Your task to perform on an android device: manage bookmarks in the chrome app Image 0: 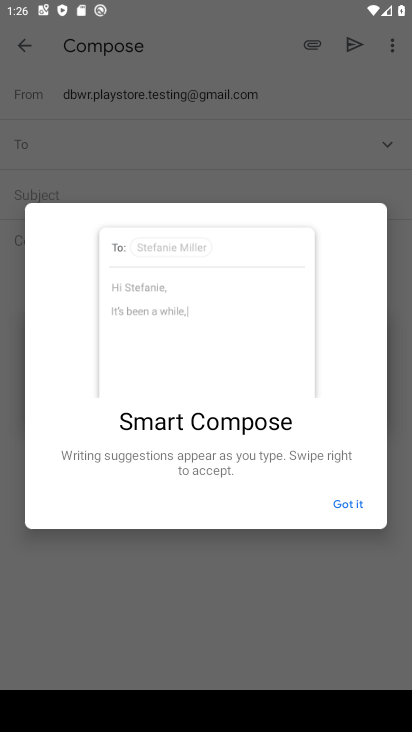
Step 0: press home button
Your task to perform on an android device: manage bookmarks in the chrome app Image 1: 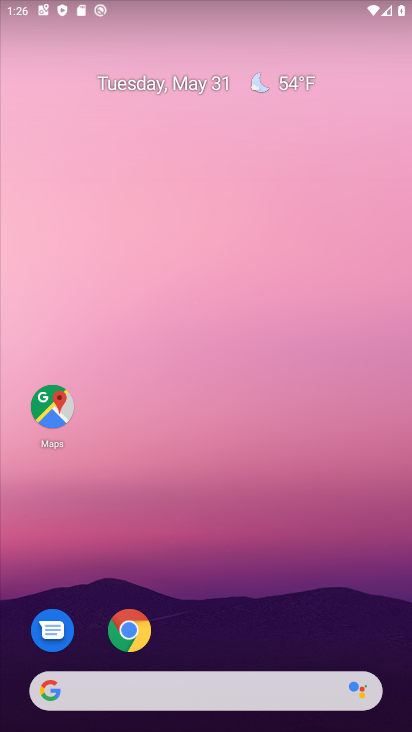
Step 1: drag from (221, 621) to (254, 90)
Your task to perform on an android device: manage bookmarks in the chrome app Image 2: 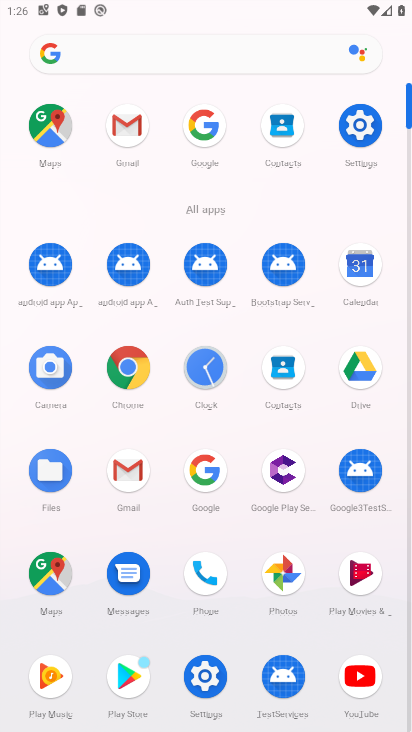
Step 2: click (132, 365)
Your task to perform on an android device: manage bookmarks in the chrome app Image 3: 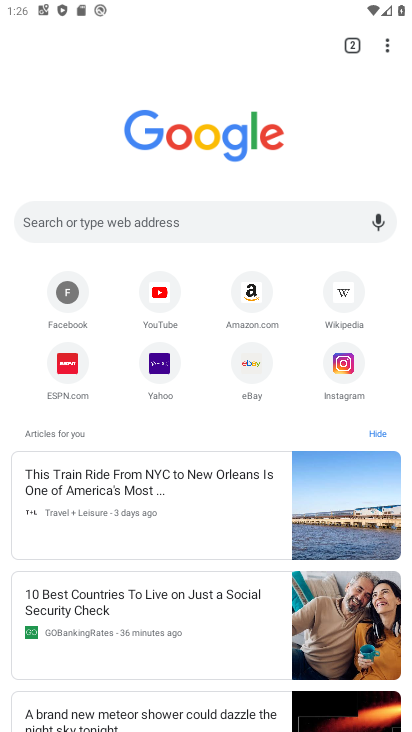
Step 3: click (386, 51)
Your task to perform on an android device: manage bookmarks in the chrome app Image 4: 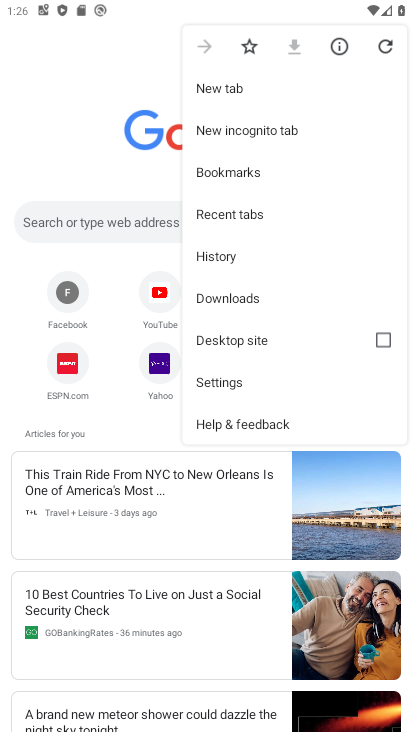
Step 4: drag from (232, 385) to (362, 60)
Your task to perform on an android device: manage bookmarks in the chrome app Image 5: 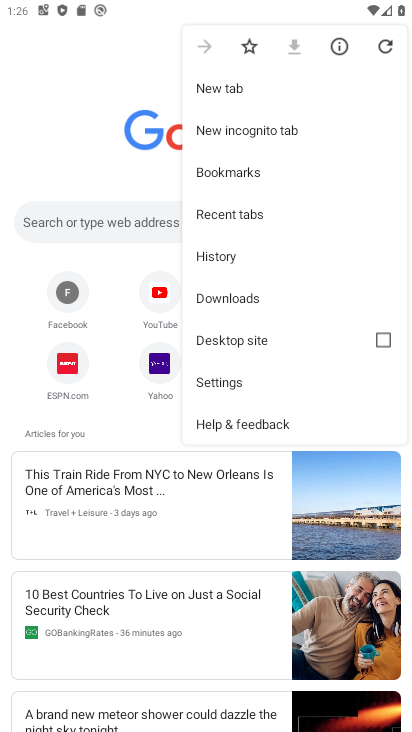
Step 5: click (254, 170)
Your task to perform on an android device: manage bookmarks in the chrome app Image 6: 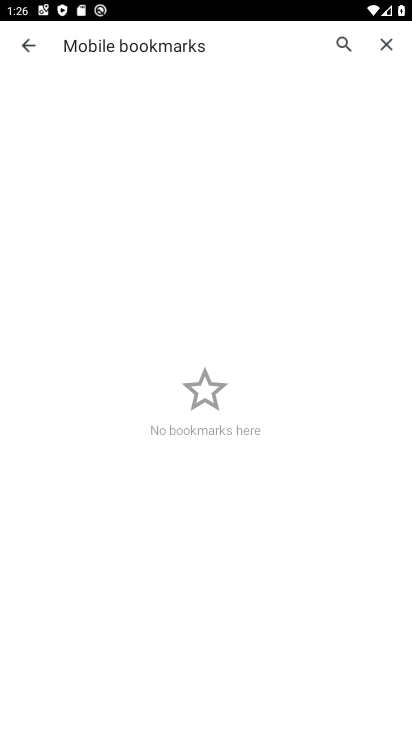
Step 6: task complete